Your task to perform on an android device: Is it going to rain tomorrow? Image 0: 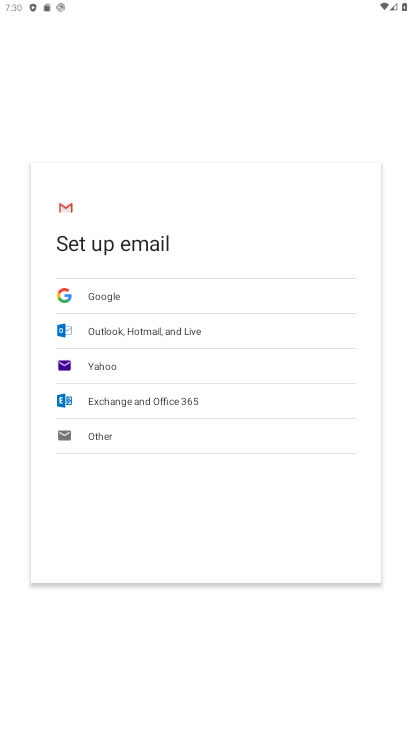
Step 0: press home button
Your task to perform on an android device: Is it going to rain tomorrow? Image 1: 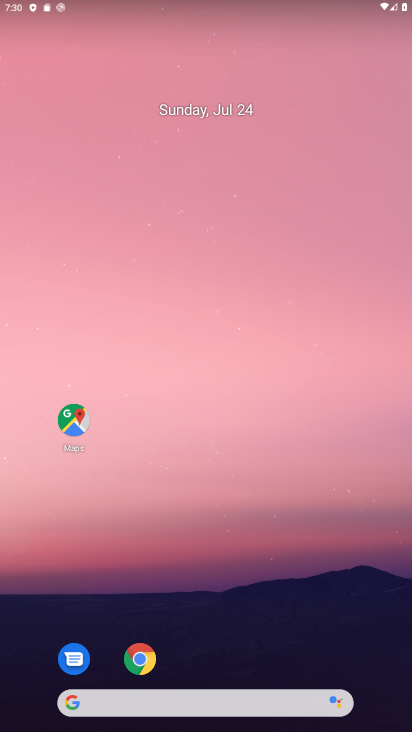
Step 1: drag from (307, 655) to (213, 23)
Your task to perform on an android device: Is it going to rain tomorrow? Image 2: 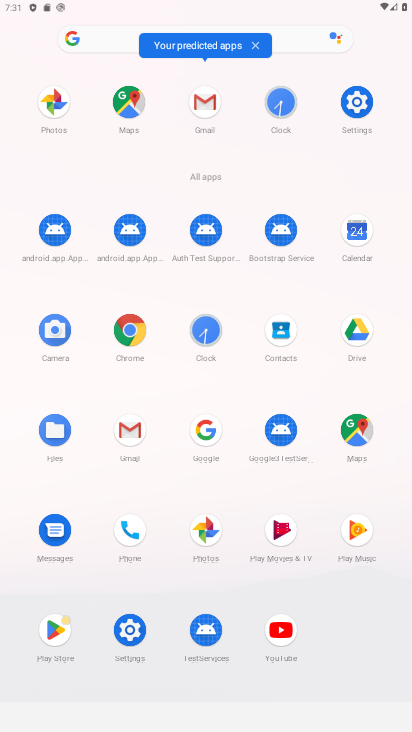
Step 2: click (129, 343)
Your task to perform on an android device: Is it going to rain tomorrow? Image 3: 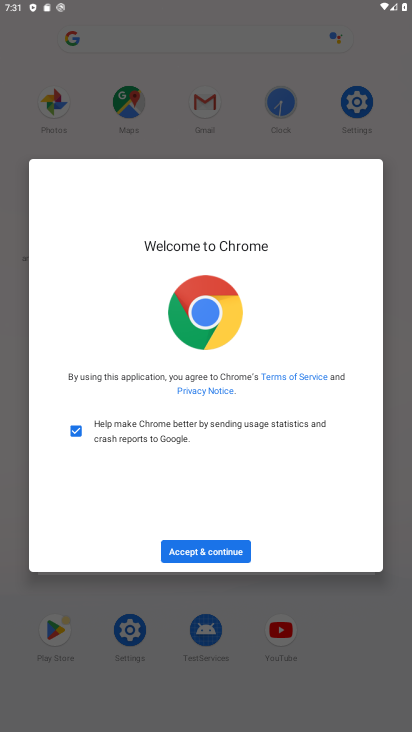
Step 3: click (197, 560)
Your task to perform on an android device: Is it going to rain tomorrow? Image 4: 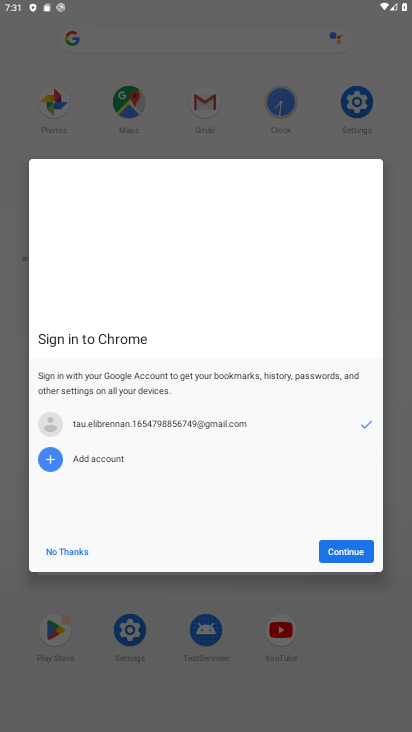
Step 4: click (360, 548)
Your task to perform on an android device: Is it going to rain tomorrow? Image 5: 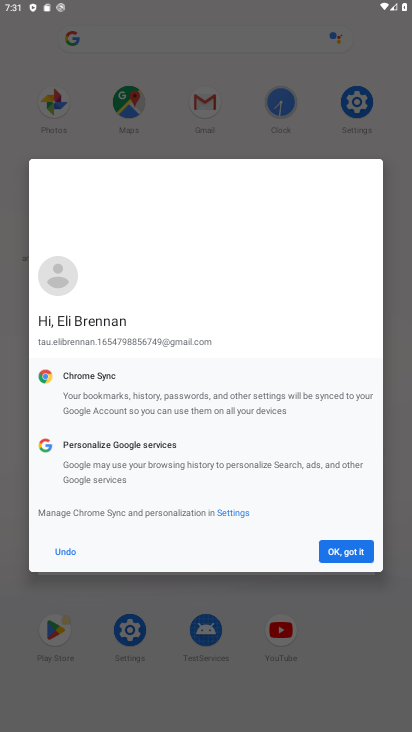
Step 5: click (359, 548)
Your task to perform on an android device: Is it going to rain tomorrow? Image 6: 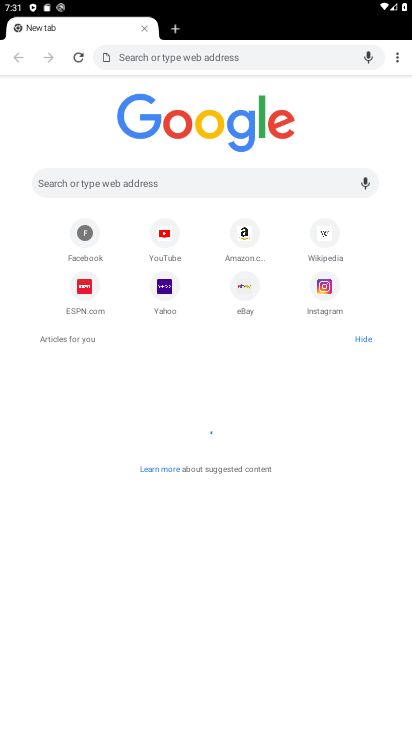
Step 6: click (242, 55)
Your task to perform on an android device: Is it going to rain tomorrow? Image 7: 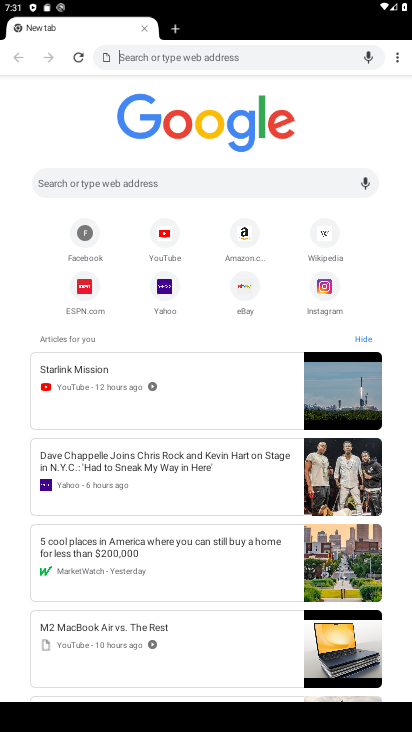
Step 7: click (240, 54)
Your task to perform on an android device: Is it going to rain tomorrow? Image 8: 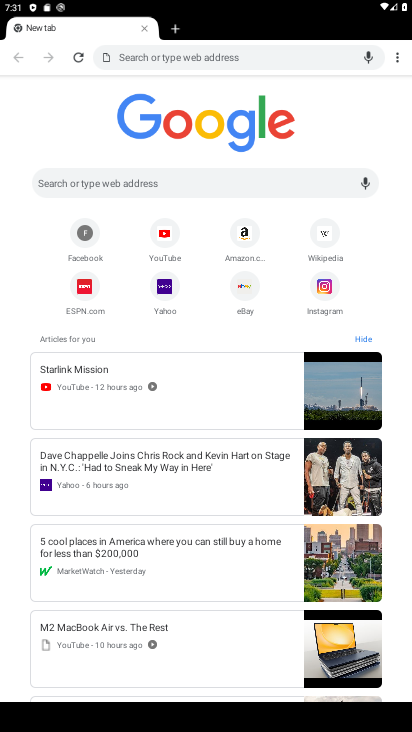
Step 8: type "weather"
Your task to perform on an android device: Is it going to rain tomorrow? Image 9: 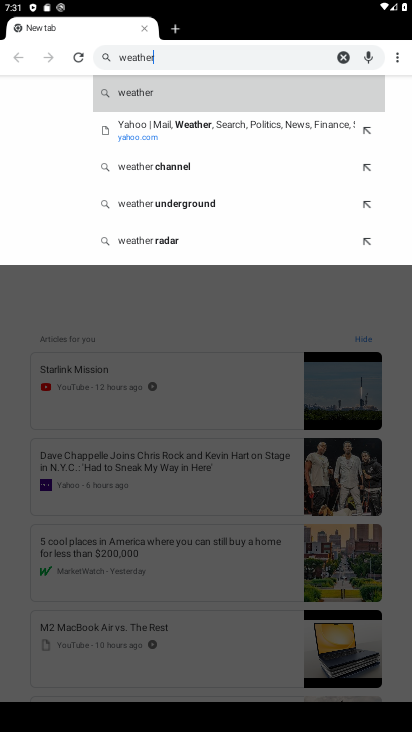
Step 9: click (166, 100)
Your task to perform on an android device: Is it going to rain tomorrow? Image 10: 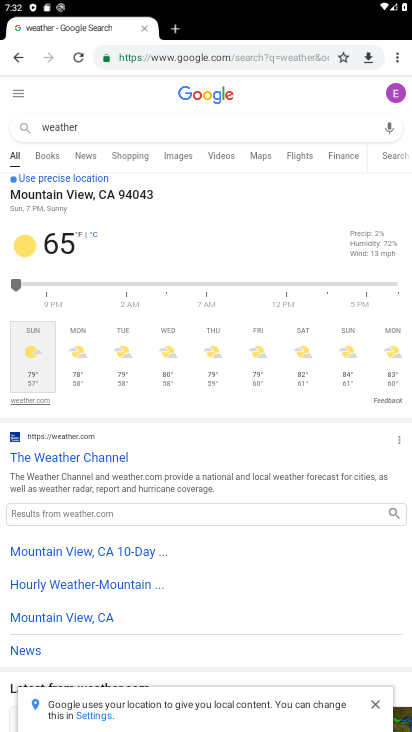
Step 10: click (78, 360)
Your task to perform on an android device: Is it going to rain tomorrow? Image 11: 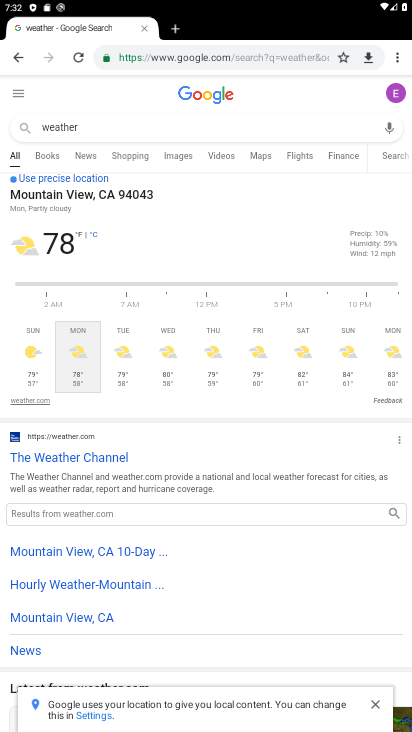
Step 11: task complete